Your task to perform on an android device: turn off translation in the chrome app Image 0: 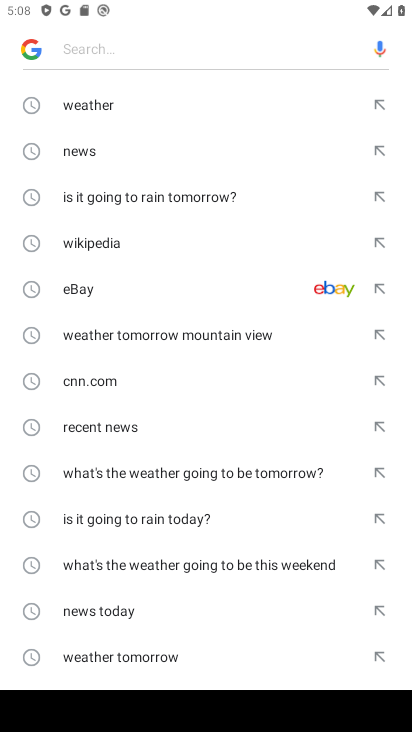
Step 0: press home button
Your task to perform on an android device: turn off translation in the chrome app Image 1: 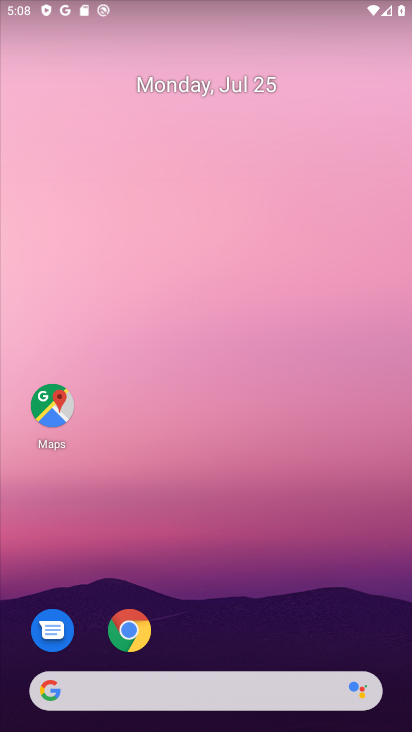
Step 1: click (132, 622)
Your task to perform on an android device: turn off translation in the chrome app Image 2: 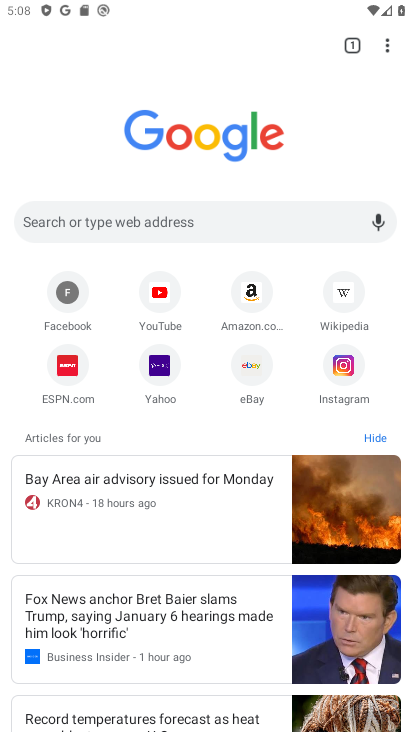
Step 2: click (389, 42)
Your task to perform on an android device: turn off translation in the chrome app Image 3: 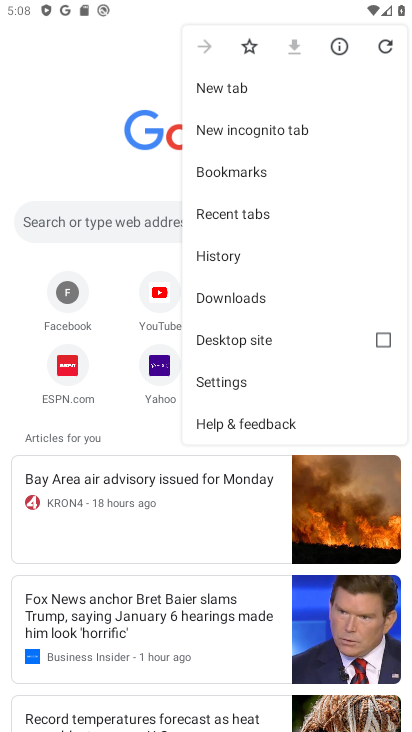
Step 3: click (238, 383)
Your task to perform on an android device: turn off translation in the chrome app Image 4: 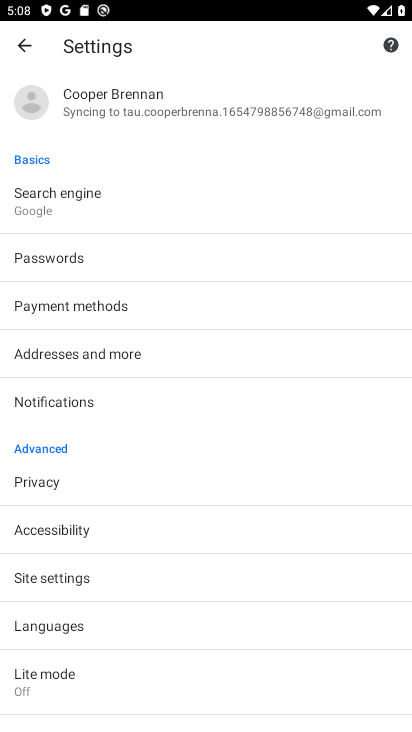
Step 4: click (65, 628)
Your task to perform on an android device: turn off translation in the chrome app Image 5: 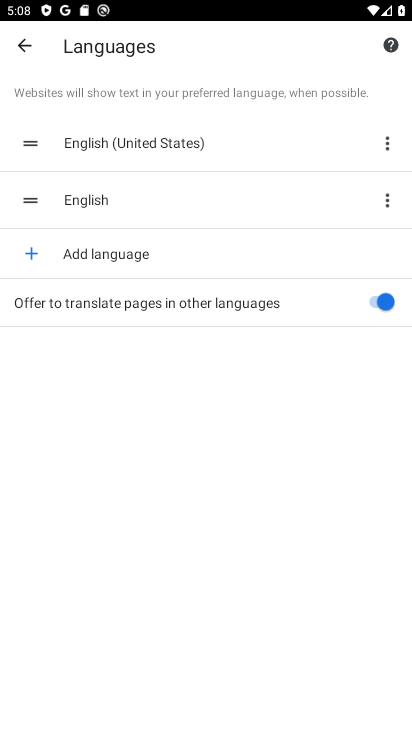
Step 5: click (385, 294)
Your task to perform on an android device: turn off translation in the chrome app Image 6: 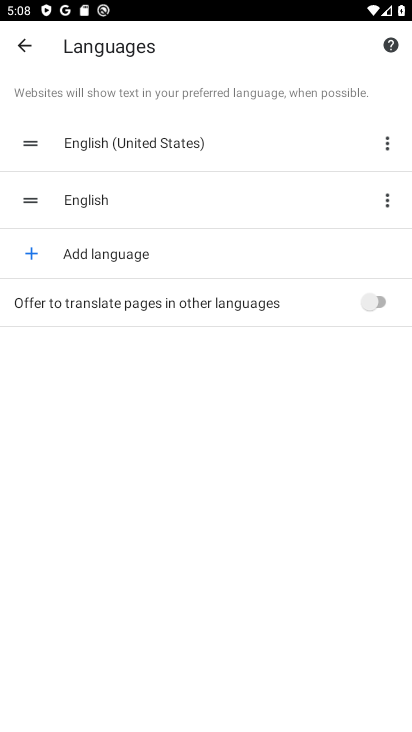
Step 6: task complete